Your task to perform on an android device: Open the Play Movies app and select the watchlist tab. Image 0: 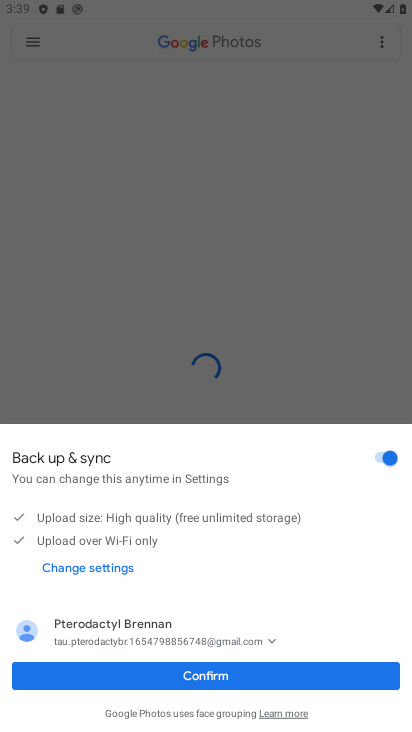
Step 0: press home button
Your task to perform on an android device: Open the Play Movies app and select the watchlist tab. Image 1: 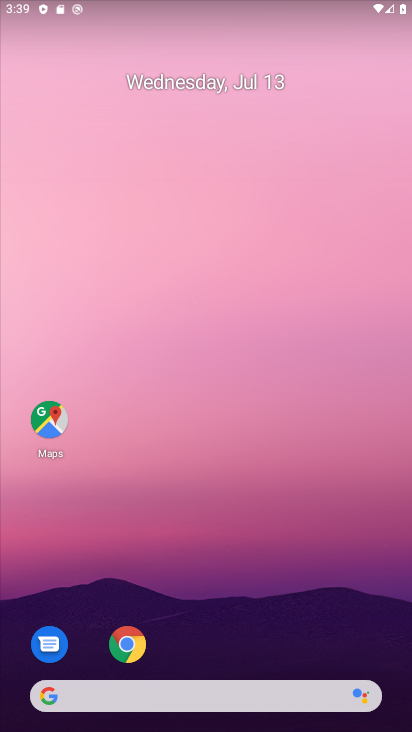
Step 1: drag from (329, 622) to (255, 90)
Your task to perform on an android device: Open the Play Movies app and select the watchlist tab. Image 2: 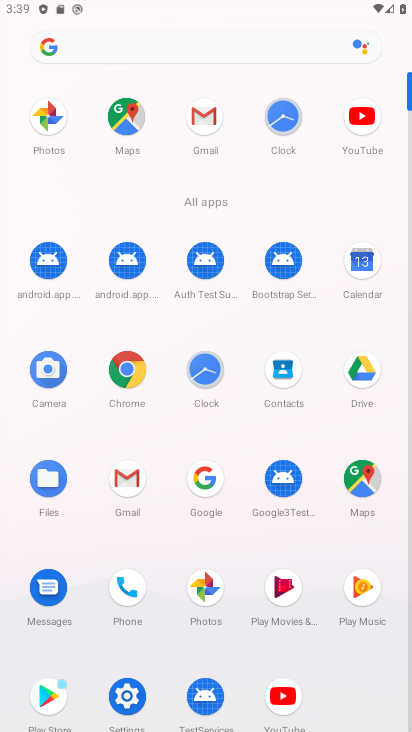
Step 2: click (286, 585)
Your task to perform on an android device: Open the Play Movies app and select the watchlist tab. Image 3: 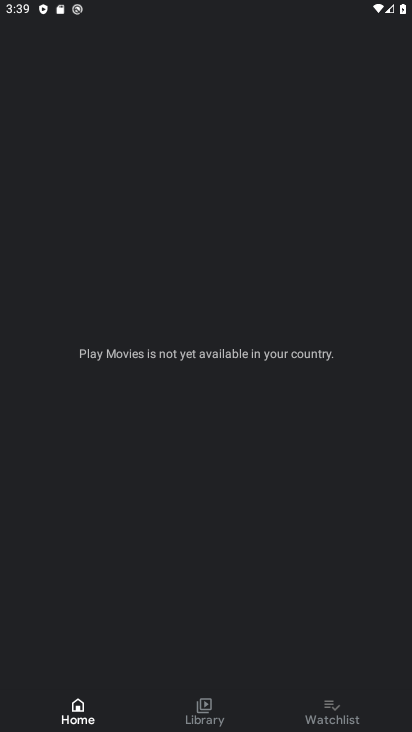
Step 3: click (332, 706)
Your task to perform on an android device: Open the Play Movies app and select the watchlist tab. Image 4: 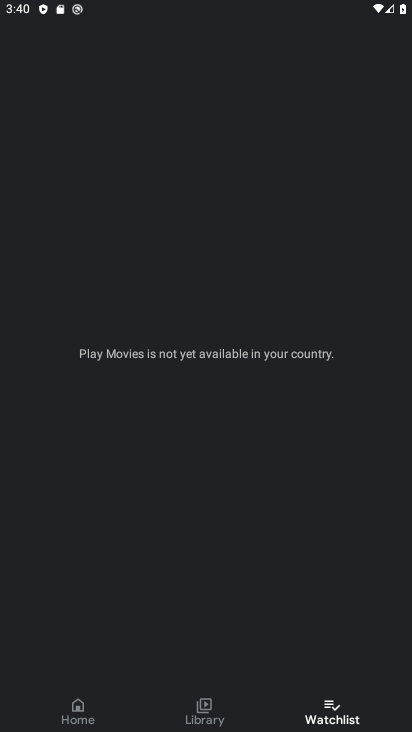
Step 4: task complete